Your task to perform on an android device: set the timer Image 0: 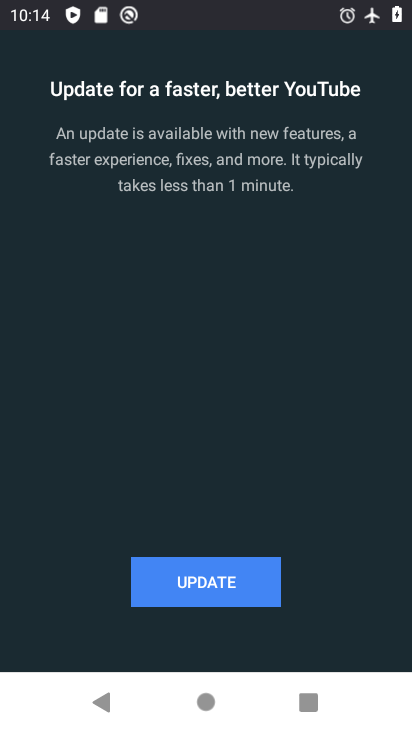
Step 0: press home button
Your task to perform on an android device: set the timer Image 1: 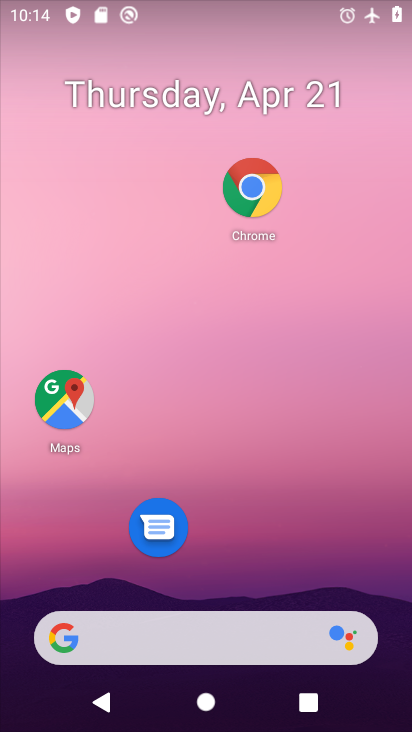
Step 1: drag from (240, 604) to (285, 179)
Your task to perform on an android device: set the timer Image 2: 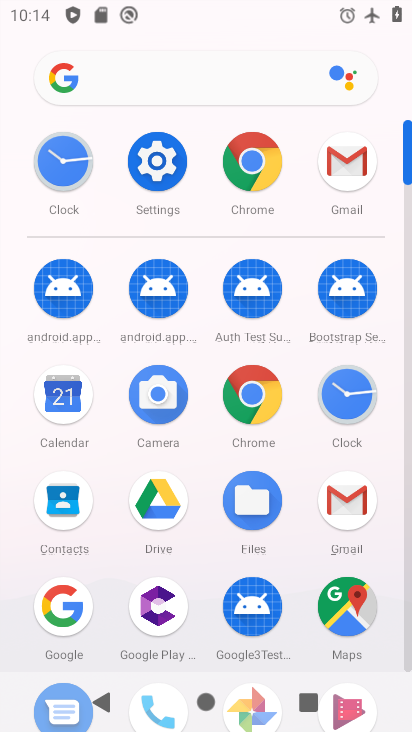
Step 2: click (349, 403)
Your task to perform on an android device: set the timer Image 3: 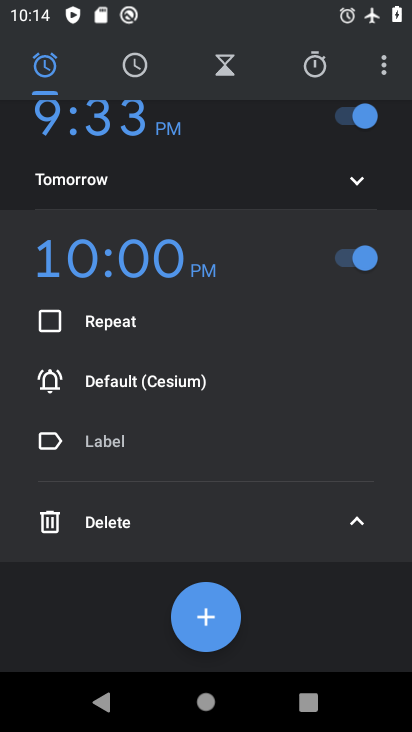
Step 3: click (227, 83)
Your task to perform on an android device: set the timer Image 4: 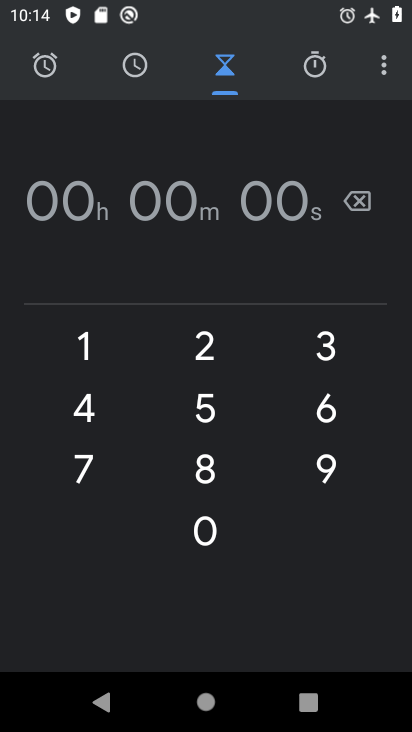
Step 4: click (197, 352)
Your task to perform on an android device: set the timer Image 5: 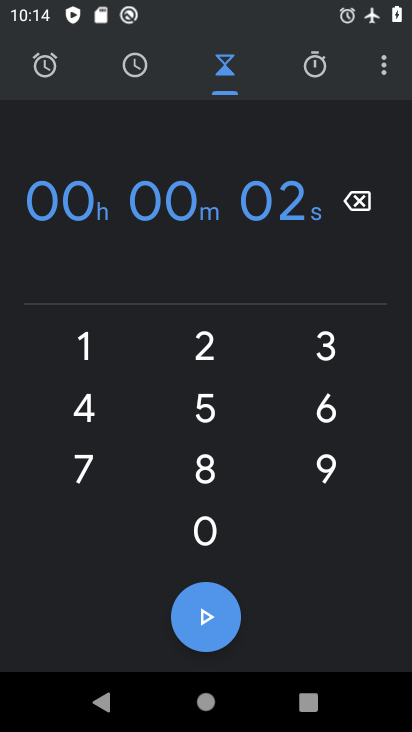
Step 5: task complete